Your task to perform on an android device: clear history in the chrome app Image 0: 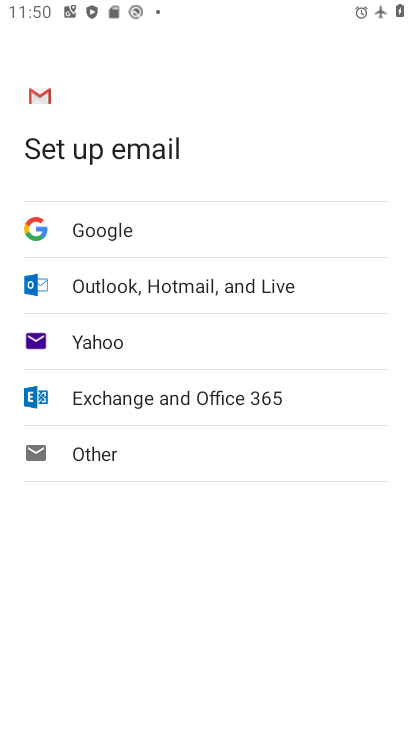
Step 0: press home button
Your task to perform on an android device: clear history in the chrome app Image 1: 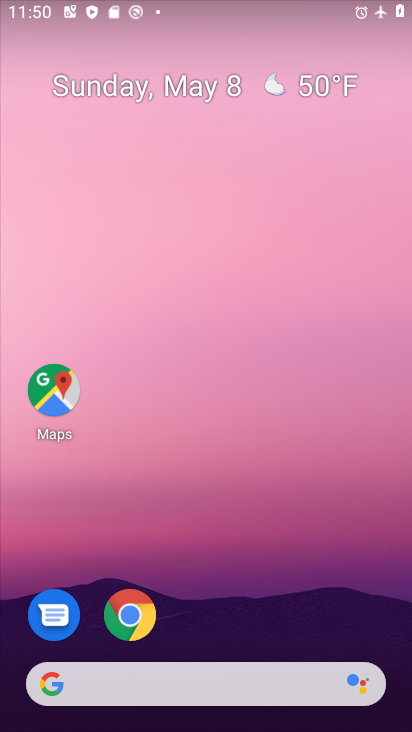
Step 1: drag from (282, 712) to (222, 162)
Your task to perform on an android device: clear history in the chrome app Image 2: 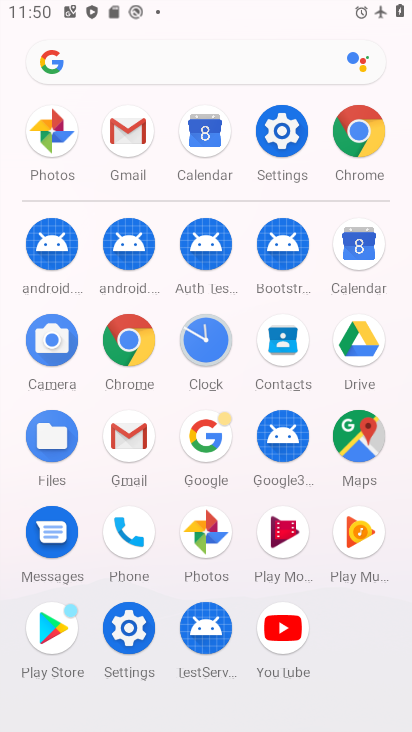
Step 2: click (374, 149)
Your task to perform on an android device: clear history in the chrome app Image 3: 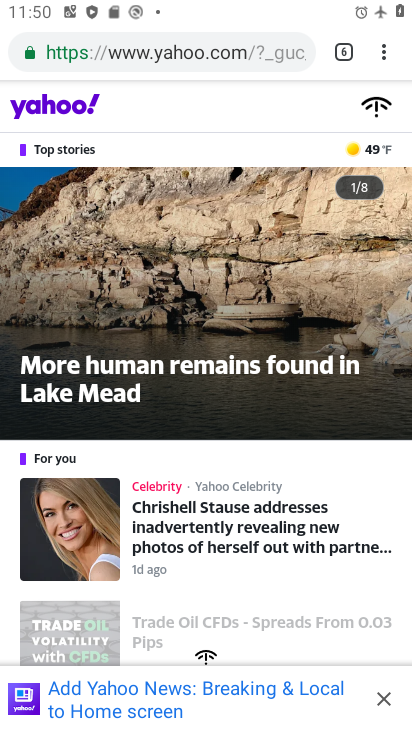
Step 3: click (384, 65)
Your task to perform on an android device: clear history in the chrome app Image 4: 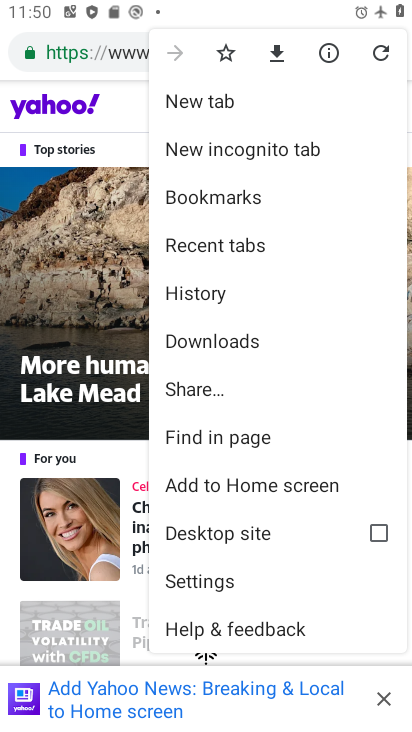
Step 4: click (195, 298)
Your task to perform on an android device: clear history in the chrome app Image 5: 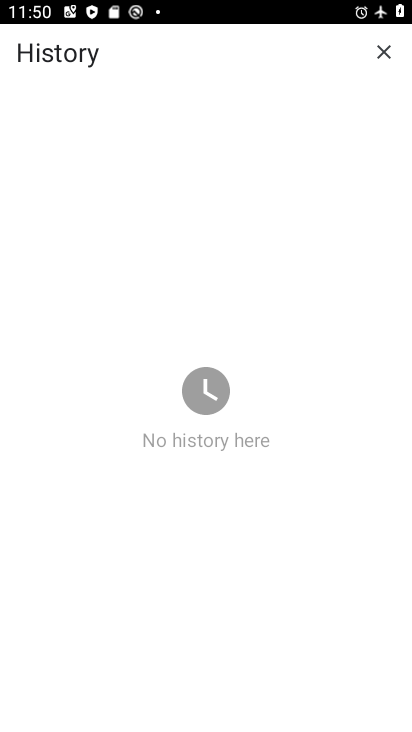
Step 5: task complete